Your task to perform on an android device: Open battery settings Image 0: 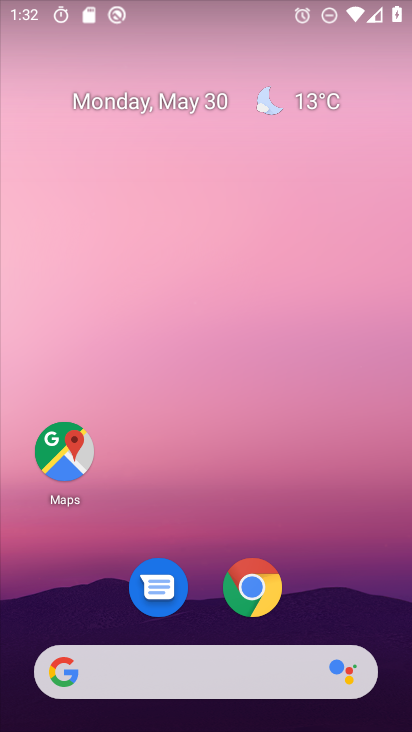
Step 0: drag from (371, 545) to (320, 34)
Your task to perform on an android device: Open battery settings Image 1: 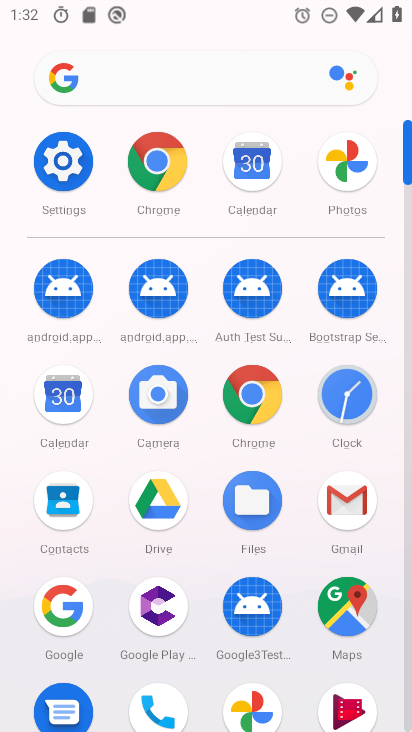
Step 1: click (61, 147)
Your task to perform on an android device: Open battery settings Image 2: 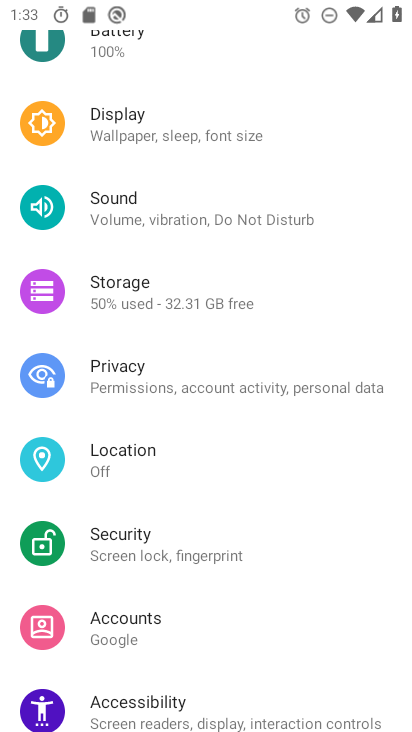
Step 2: drag from (221, 665) to (173, 48)
Your task to perform on an android device: Open battery settings Image 3: 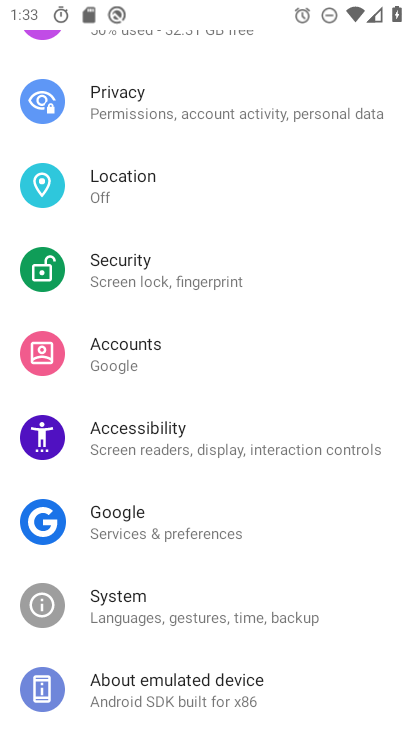
Step 3: drag from (192, 510) to (229, 76)
Your task to perform on an android device: Open battery settings Image 4: 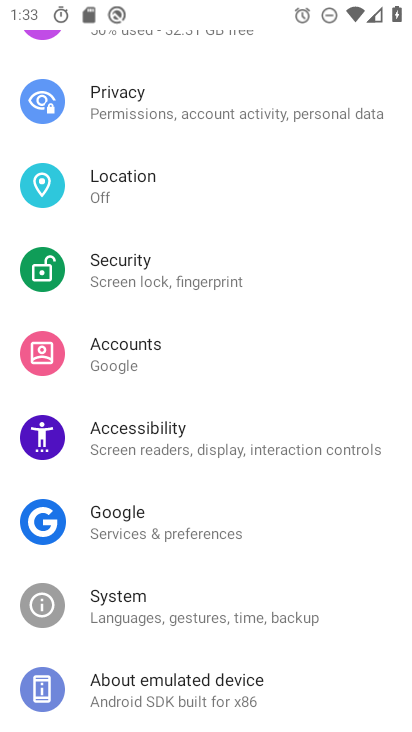
Step 4: drag from (211, 234) to (193, 666)
Your task to perform on an android device: Open battery settings Image 5: 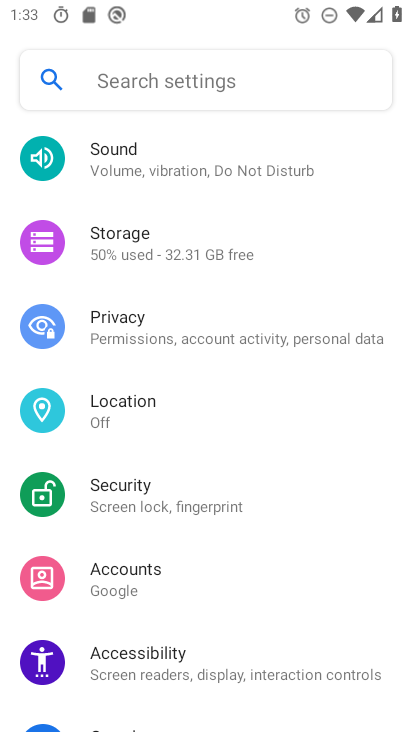
Step 5: drag from (231, 246) to (228, 651)
Your task to perform on an android device: Open battery settings Image 6: 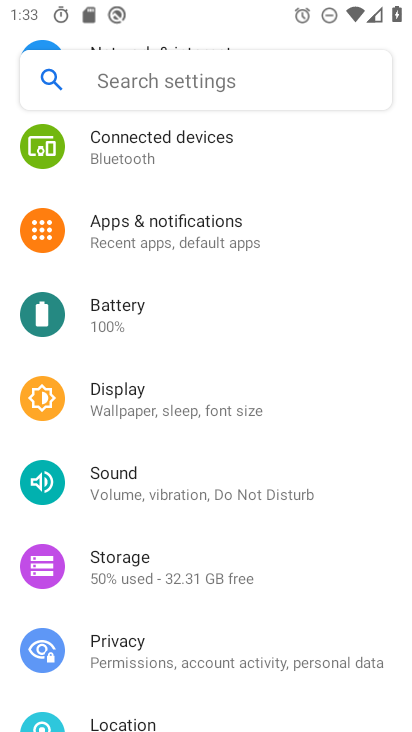
Step 6: drag from (244, 300) to (231, 444)
Your task to perform on an android device: Open battery settings Image 7: 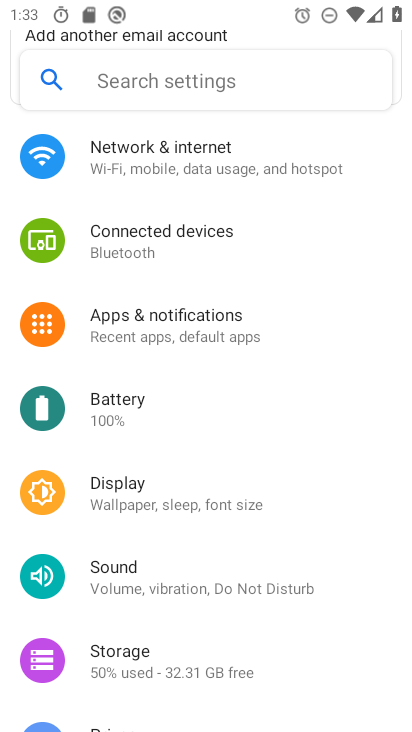
Step 7: click (108, 401)
Your task to perform on an android device: Open battery settings Image 8: 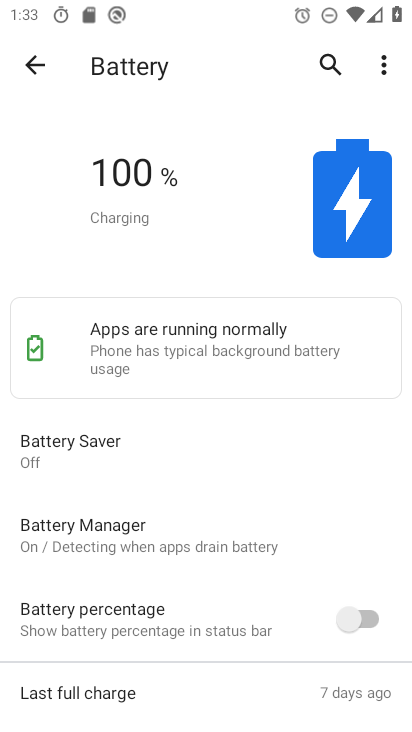
Step 8: task complete